Your task to perform on an android device: Go to network settings Image 0: 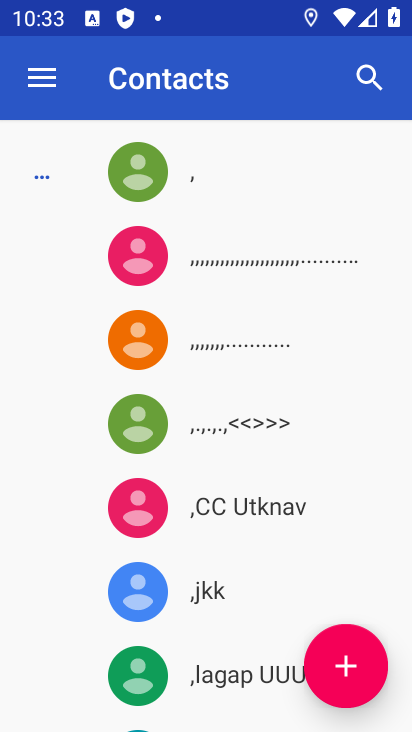
Step 0: press home button
Your task to perform on an android device: Go to network settings Image 1: 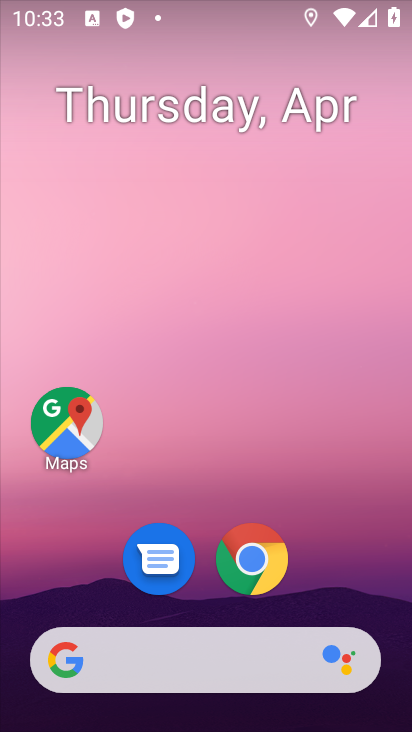
Step 1: drag from (216, 725) to (202, 102)
Your task to perform on an android device: Go to network settings Image 2: 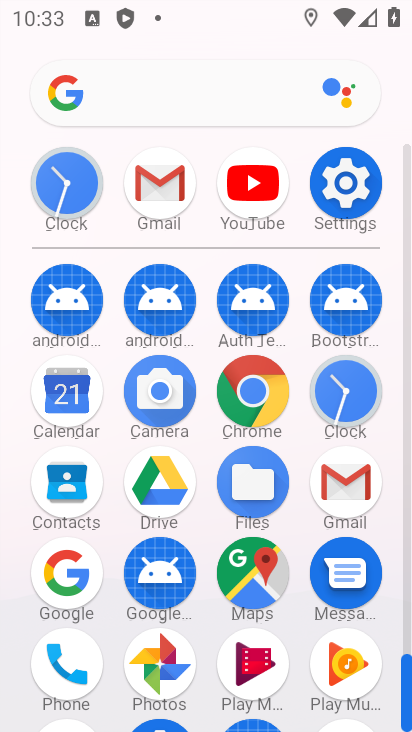
Step 2: click (352, 187)
Your task to perform on an android device: Go to network settings Image 3: 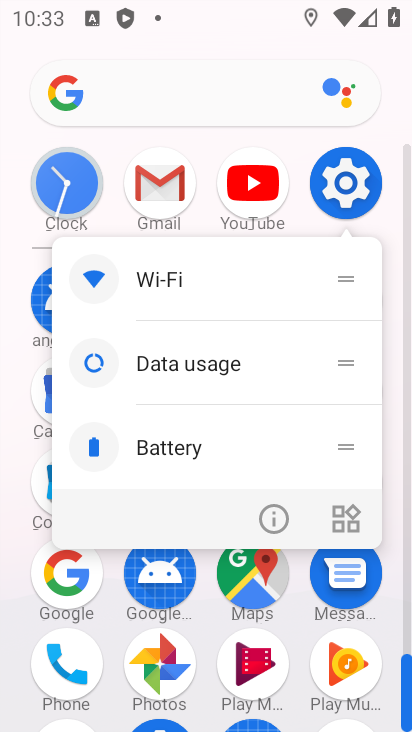
Step 3: click (346, 196)
Your task to perform on an android device: Go to network settings Image 4: 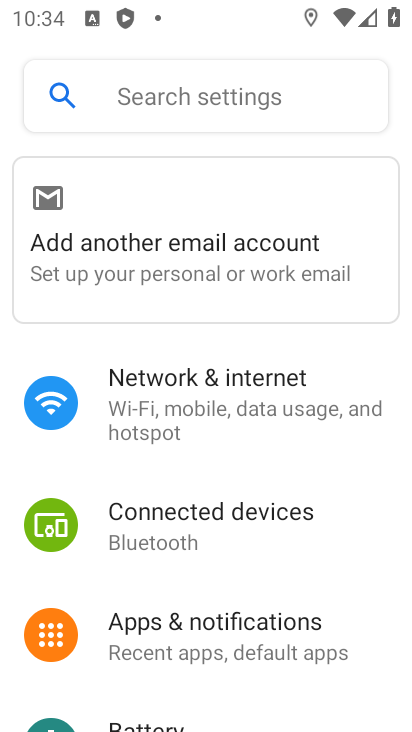
Step 4: click (221, 403)
Your task to perform on an android device: Go to network settings Image 5: 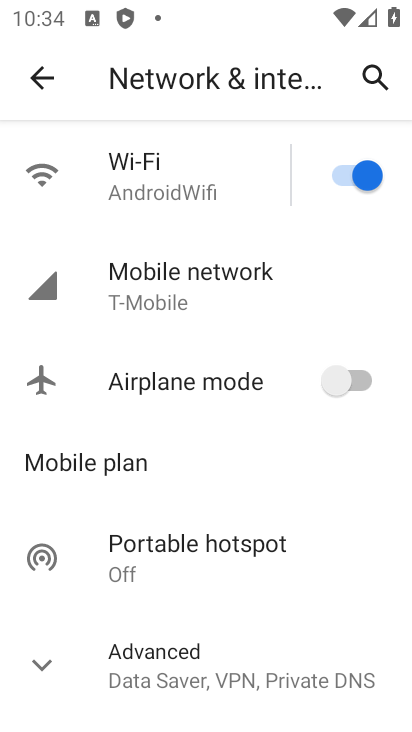
Step 5: task complete